Your task to perform on an android device: open app "AliExpress" (install if not already installed) and go to login screen Image 0: 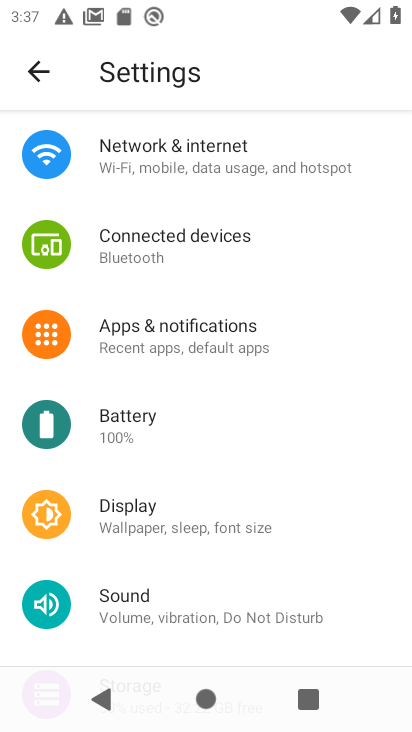
Step 0: press home button
Your task to perform on an android device: open app "AliExpress" (install if not already installed) and go to login screen Image 1: 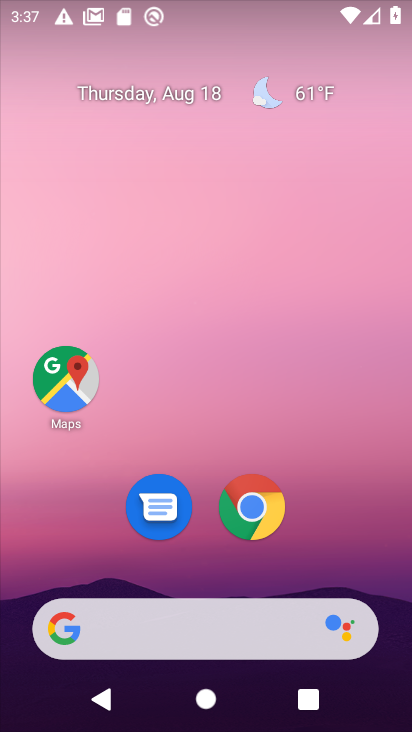
Step 1: drag from (185, 591) to (260, 35)
Your task to perform on an android device: open app "AliExpress" (install if not already installed) and go to login screen Image 2: 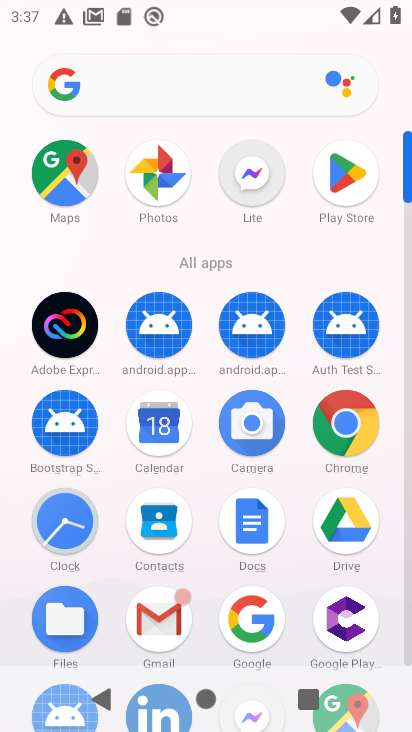
Step 2: click (337, 169)
Your task to perform on an android device: open app "AliExpress" (install if not already installed) and go to login screen Image 3: 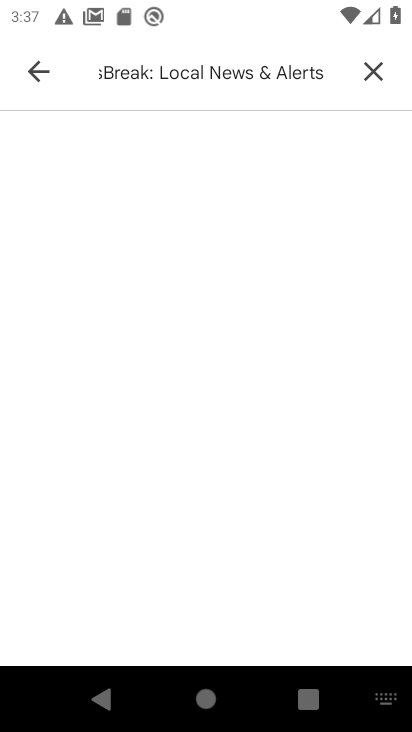
Step 3: click (392, 41)
Your task to perform on an android device: open app "AliExpress" (install if not already installed) and go to login screen Image 4: 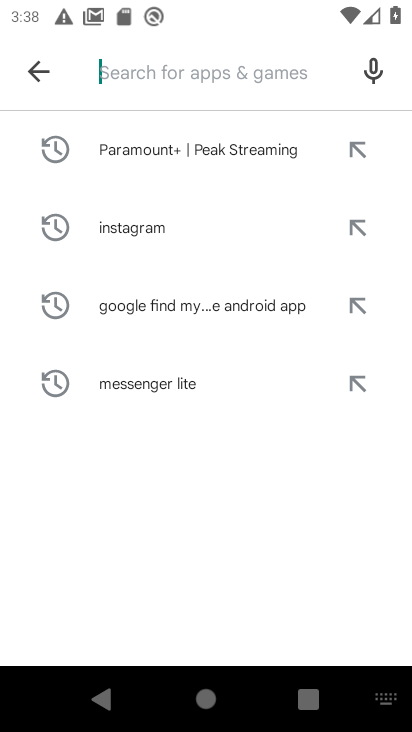
Step 4: click (174, 88)
Your task to perform on an android device: open app "AliExpress" (install if not already installed) and go to login screen Image 5: 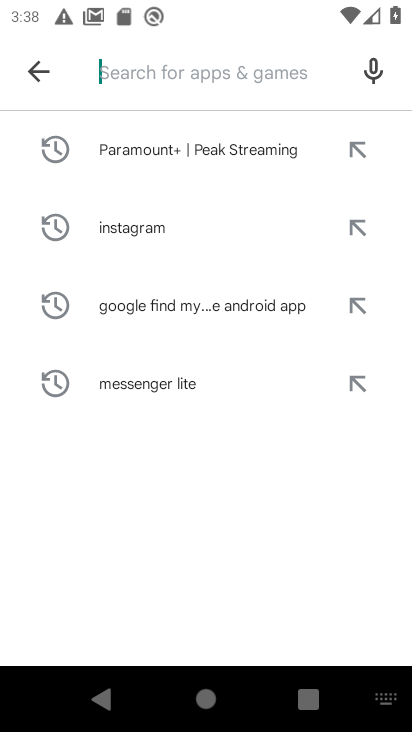
Step 5: type "AliExpress"
Your task to perform on an android device: open app "AliExpress" (install if not already installed) and go to login screen Image 6: 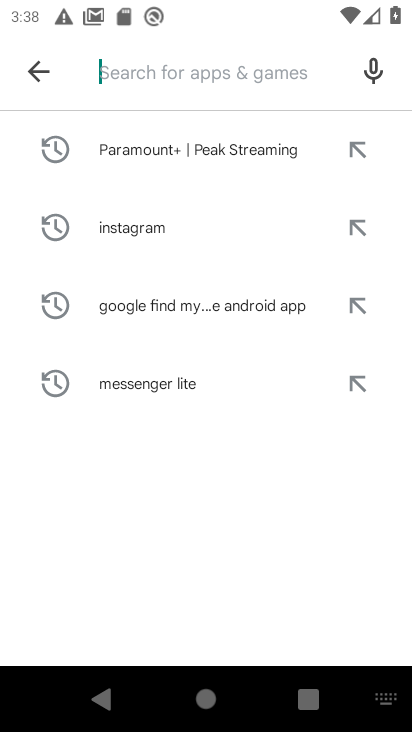
Step 6: click (242, 459)
Your task to perform on an android device: open app "AliExpress" (install if not already installed) and go to login screen Image 7: 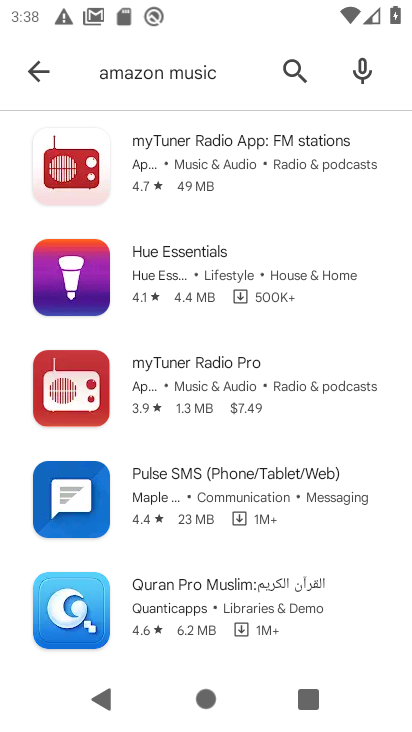
Step 7: click (292, 69)
Your task to perform on an android device: open app "AliExpress" (install if not already installed) and go to login screen Image 8: 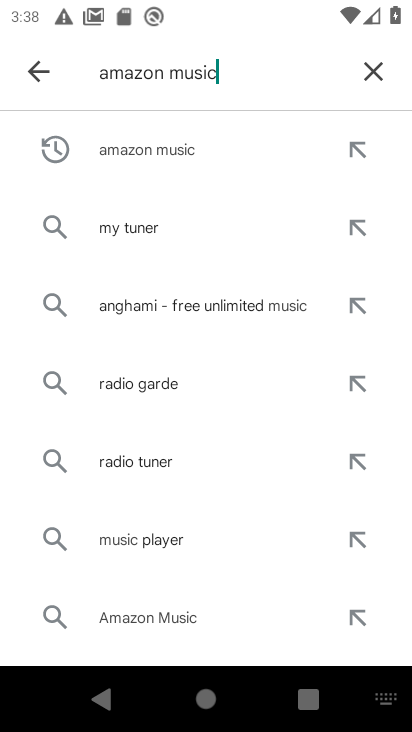
Step 8: click (371, 58)
Your task to perform on an android device: open app "AliExpress" (install if not already installed) and go to login screen Image 9: 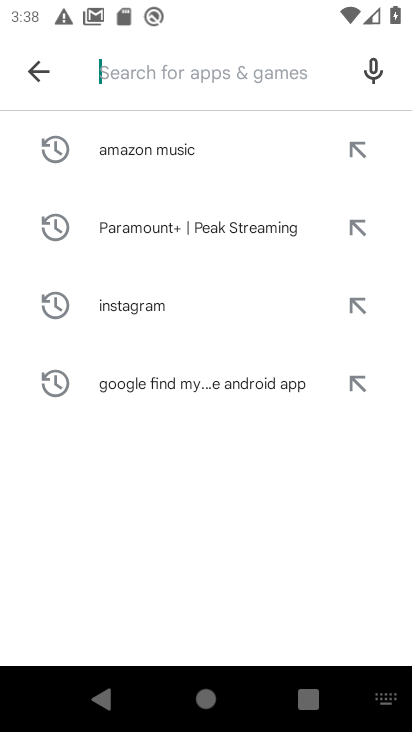
Step 9: click (183, 69)
Your task to perform on an android device: open app "AliExpress" (install if not already installed) and go to login screen Image 10: 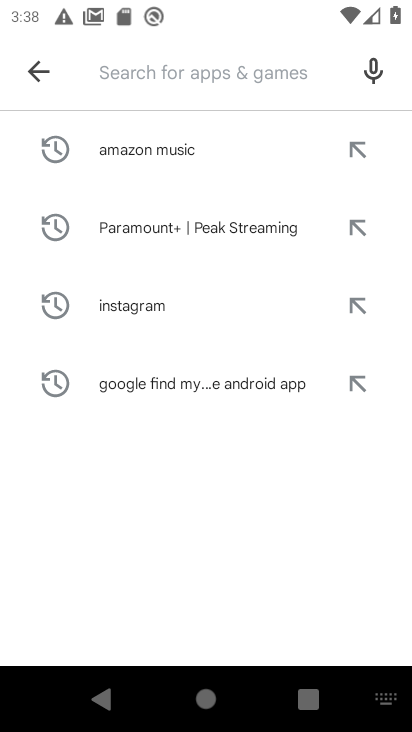
Step 10: type "AliExpress"
Your task to perform on an android device: open app "AliExpress" (install if not already installed) and go to login screen Image 11: 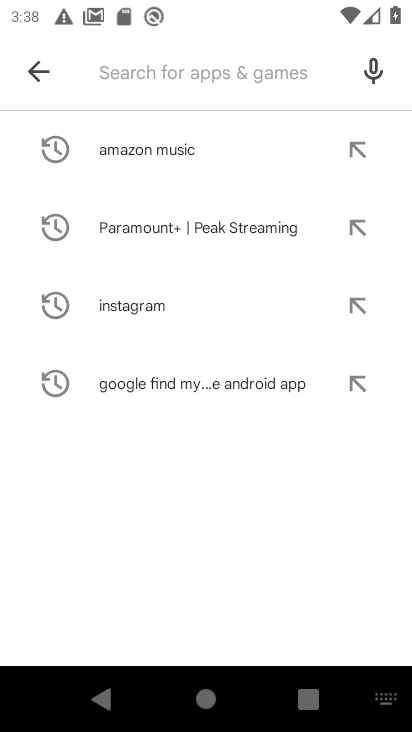
Step 11: click (197, 478)
Your task to perform on an android device: open app "AliExpress" (install if not already installed) and go to login screen Image 12: 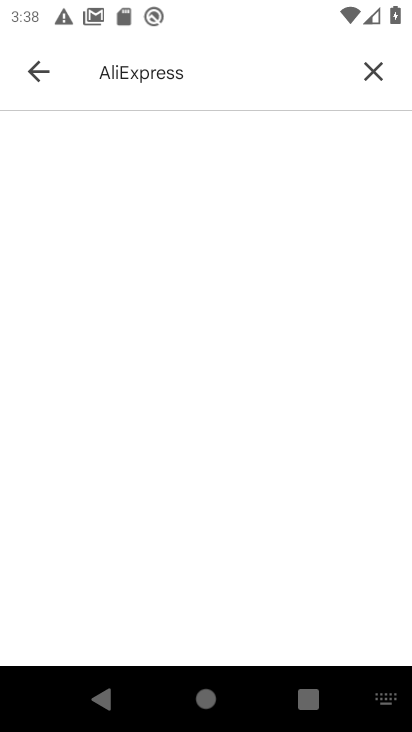
Step 12: click (375, 49)
Your task to perform on an android device: open app "AliExpress" (install if not already installed) and go to login screen Image 13: 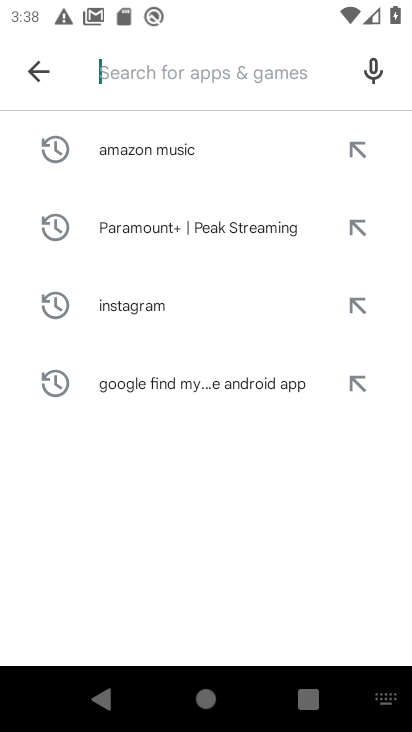
Step 13: click (202, 71)
Your task to perform on an android device: open app "AliExpress" (install if not already installed) and go to login screen Image 14: 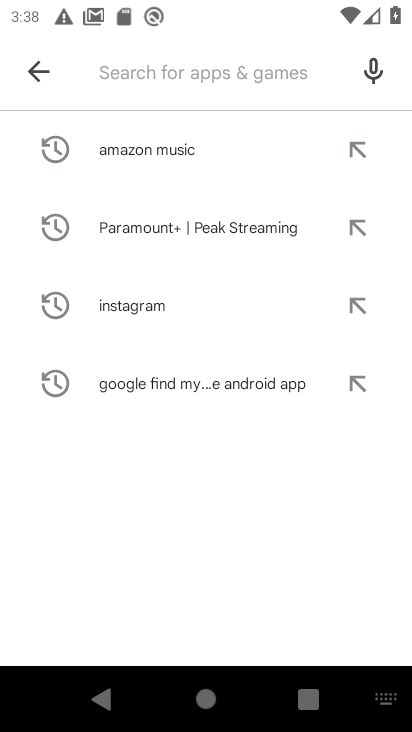
Step 14: type "ali"
Your task to perform on an android device: open app "AliExpress" (install if not already installed) and go to login screen Image 15: 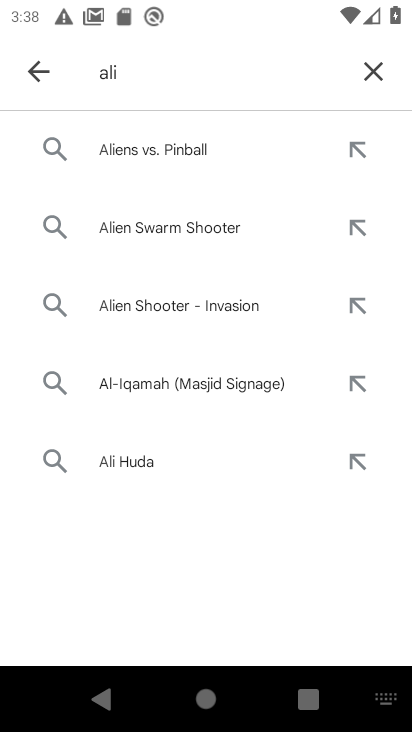
Step 15: type " express"
Your task to perform on an android device: open app "AliExpress" (install if not already installed) and go to login screen Image 16: 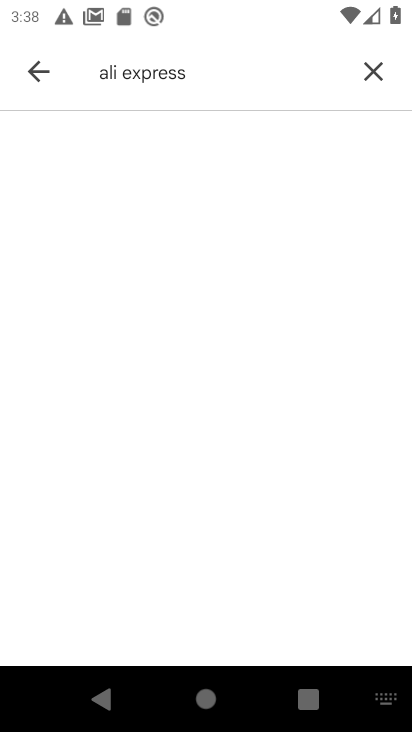
Step 16: task complete